Your task to perform on an android device: Open display settings Image 0: 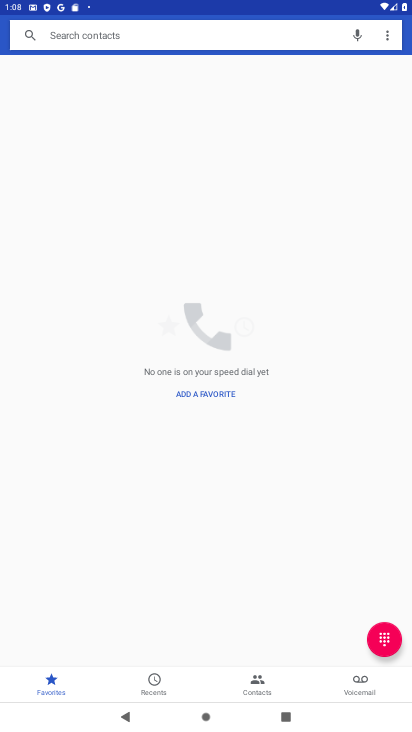
Step 0: press home button
Your task to perform on an android device: Open display settings Image 1: 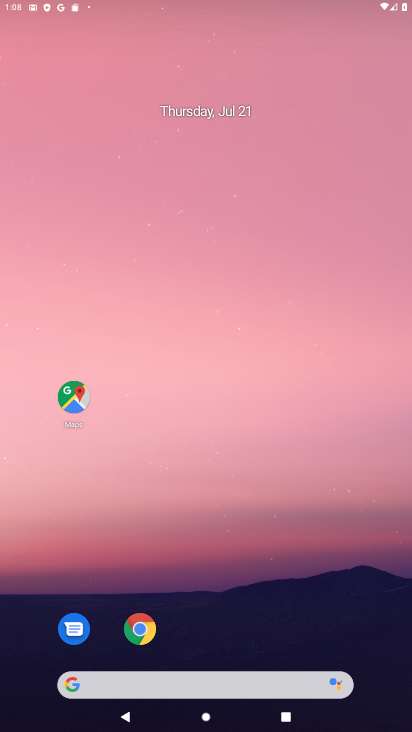
Step 1: drag from (196, 637) to (227, 117)
Your task to perform on an android device: Open display settings Image 2: 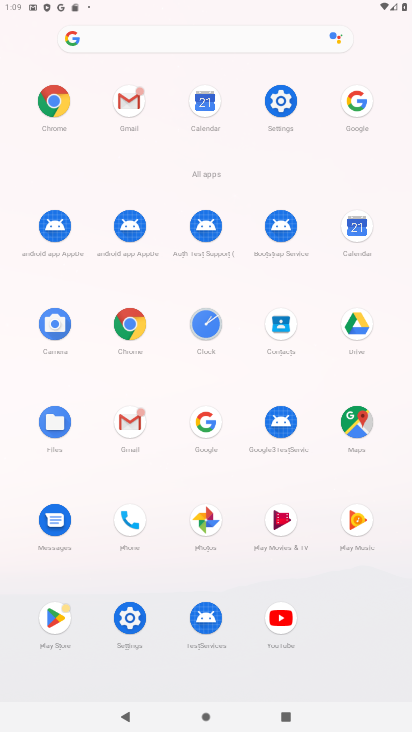
Step 2: click (281, 97)
Your task to perform on an android device: Open display settings Image 3: 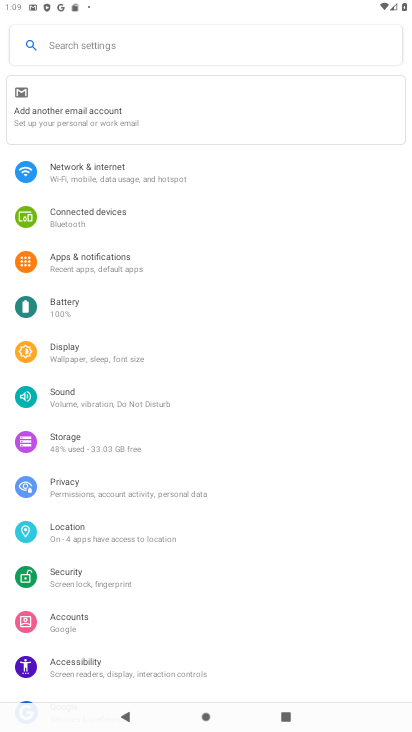
Step 3: click (68, 361)
Your task to perform on an android device: Open display settings Image 4: 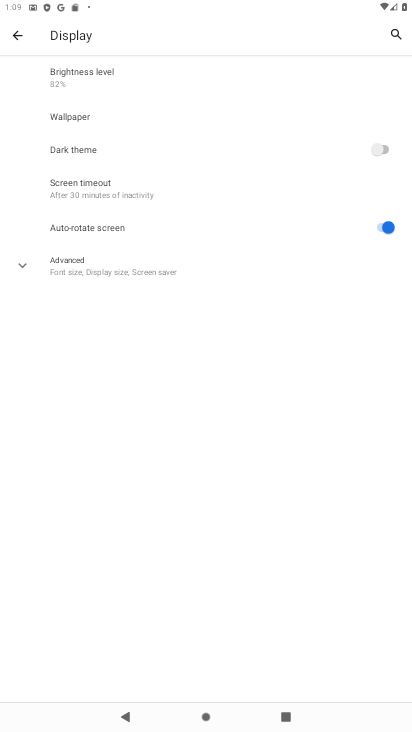
Step 4: task complete